Your task to perform on an android device: What is the recent news? Image 0: 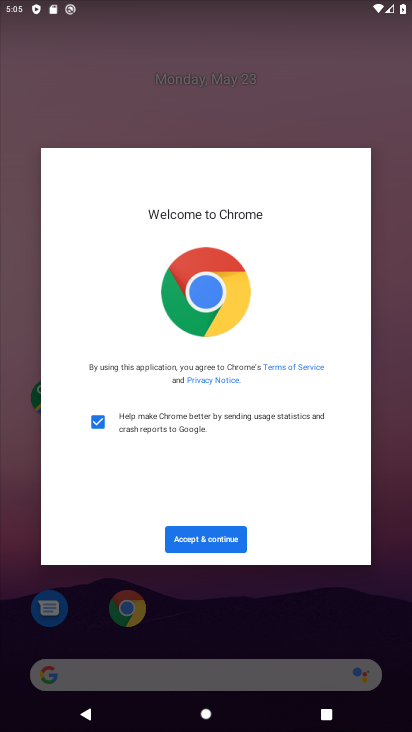
Step 0: click (231, 541)
Your task to perform on an android device: What is the recent news? Image 1: 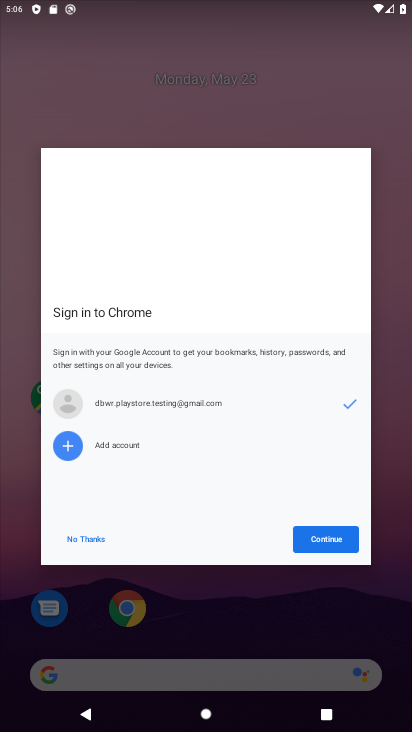
Step 1: click (349, 535)
Your task to perform on an android device: What is the recent news? Image 2: 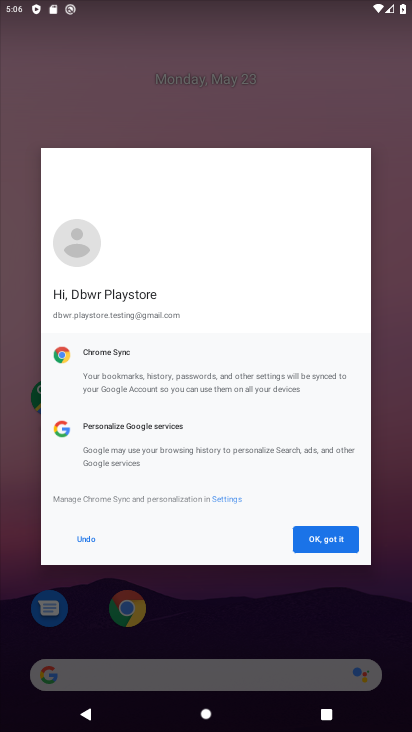
Step 2: click (333, 548)
Your task to perform on an android device: What is the recent news? Image 3: 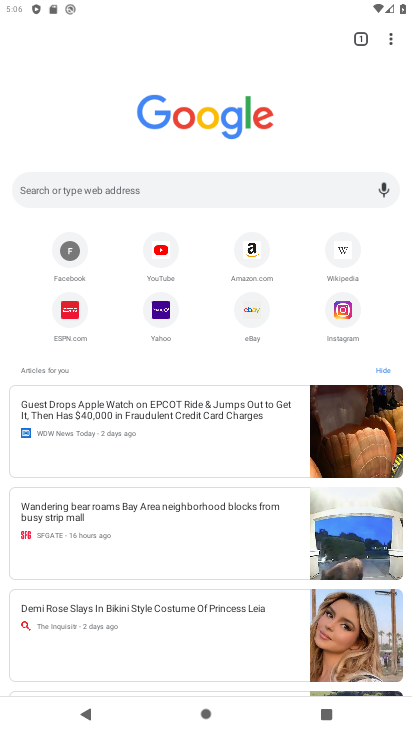
Step 3: press home button
Your task to perform on an android device: What is the recent news? Image 4: 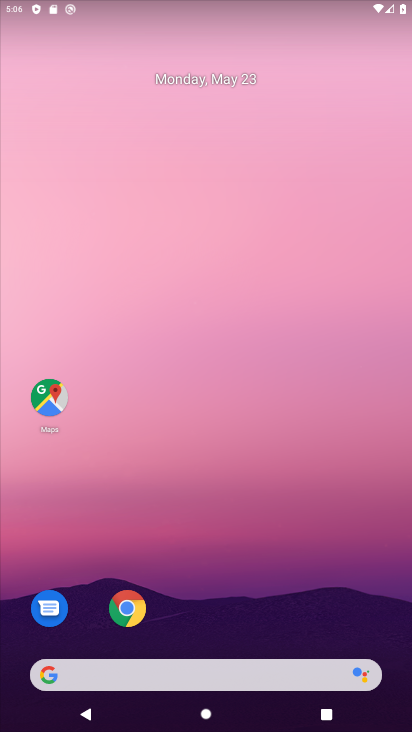
Step 4: click (229, 675)
Your task to perform on an android device: What is the recent news? Image 5: 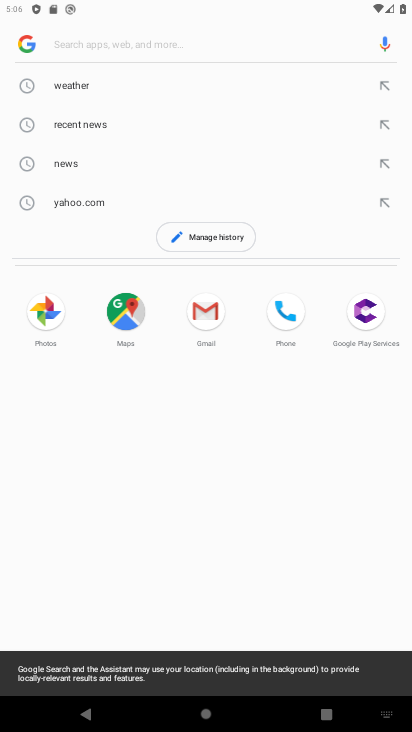
Step 5: click (85, 116)
Your task to perform on an android device: What is the recent news? Image 6: 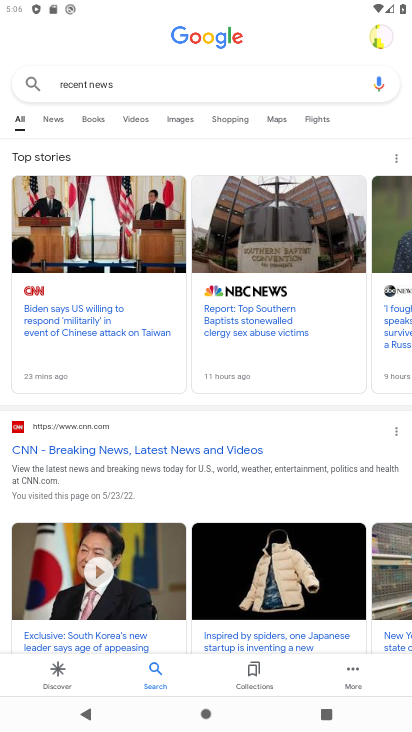
Step 6: task complete